Your task to perform on an android device: turn off picture-in-picture Image 0: 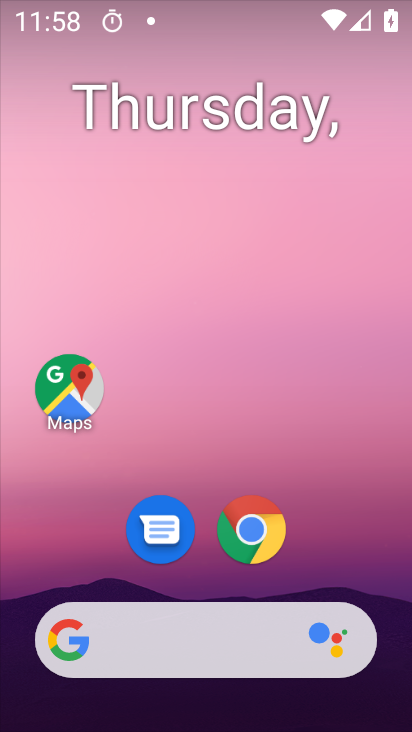
Step 0: click (259, 509)
Your task to perform on an android device: turn off picture-in-picture Image 1: 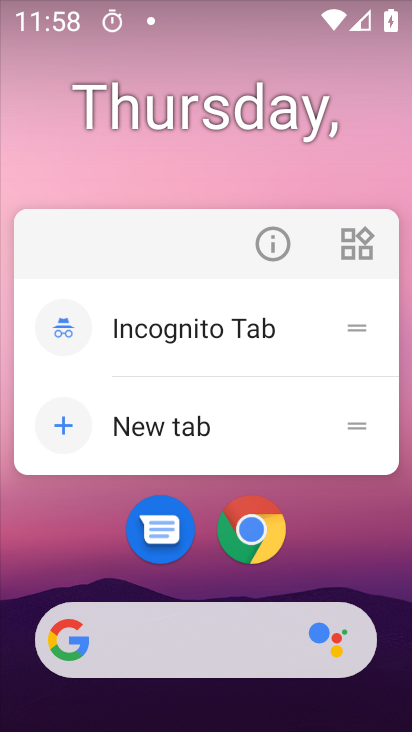
Step 1: click (275, 242)
Your task to perform on an android device: turn off picture-in-picture Image 2: 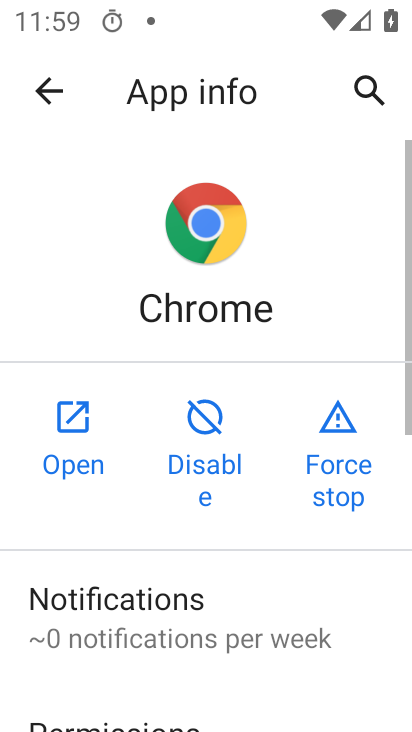
Step 2: drag from (106, 549) to (185, 218)
Your task to perform on an android device: turn off picture-in-picture Image 3: 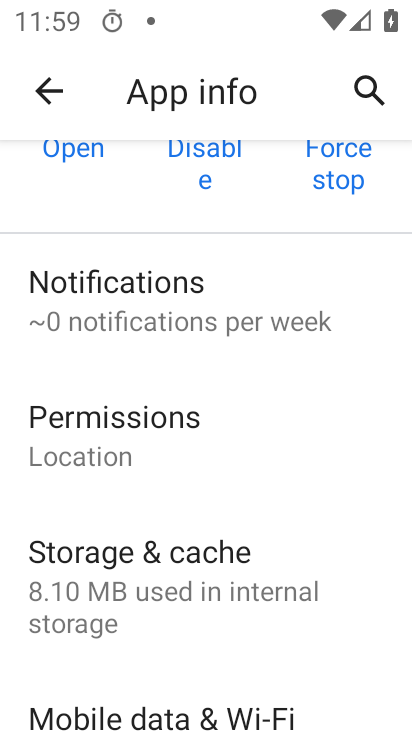
Step 3: drag from (129, 633) to (229, 246)
Your task to perform on an android device: turn off picture-in-picture Image 4: 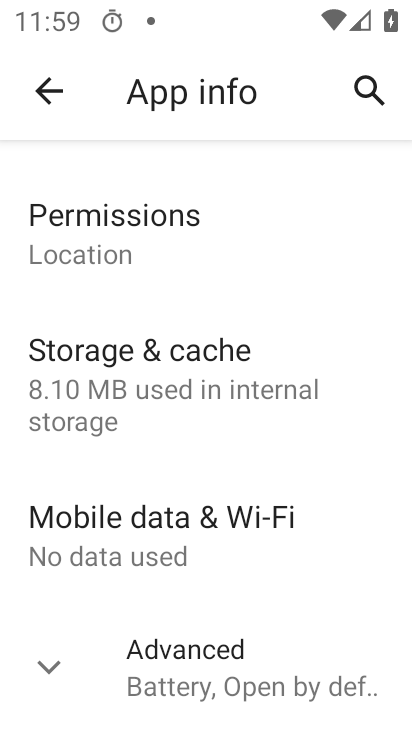
Step 4: click (156, 657)
Your task to perform on an android device: turn off picture-in-picture Image 5: 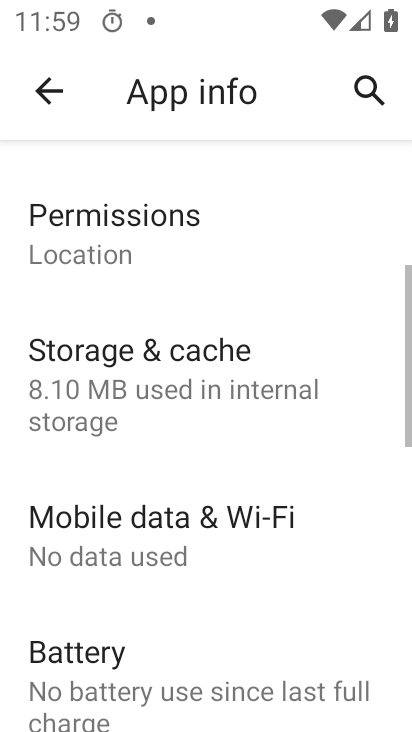
Step 5: drag from (210, 674) to (245, 286)
Your task to perform on an android device: turn off picture-in-picture Image 6: 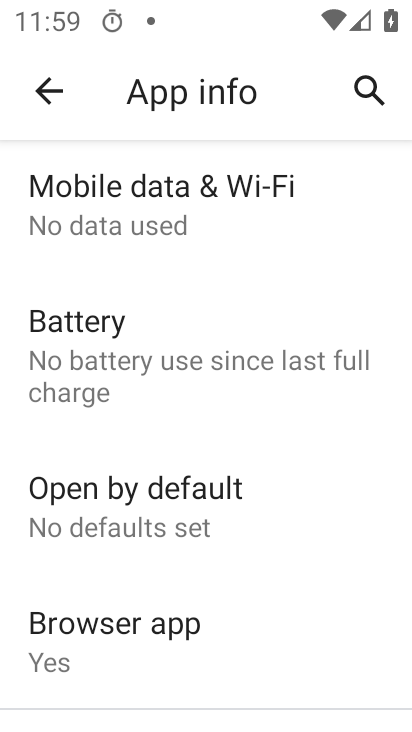
Step 6: drag from (195, 584) to (241, 283)
Your task to perform on an android device: turn off picture-in-picture Image 7: 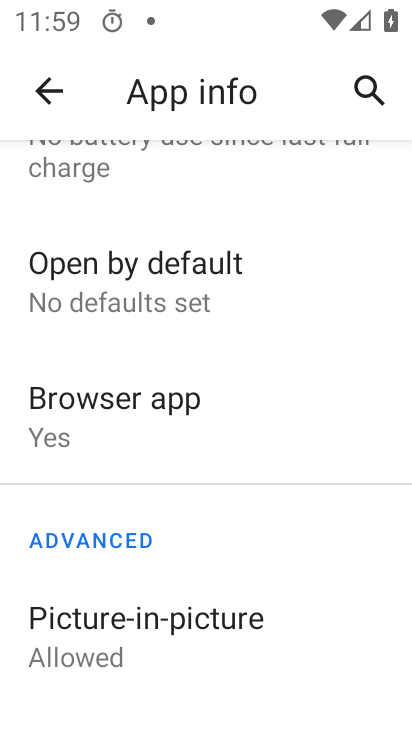
Step 7: click (139, 630)
Your task to perform on an android device: turn off picture-in-picture Image 8: 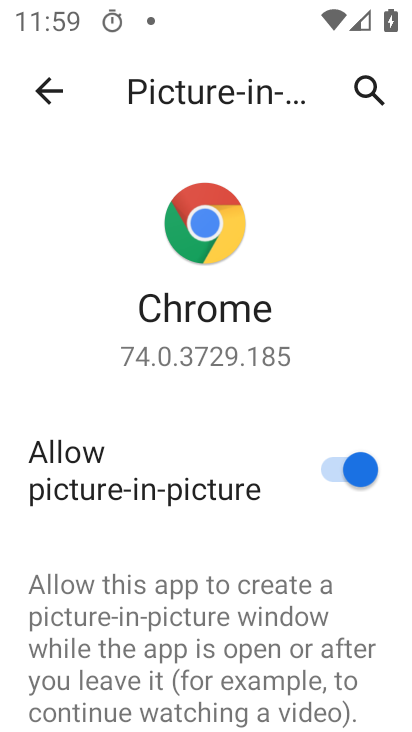
Step 8: click (306, 476)
Your task to perform on an android device: turn off picture-in-picture Image 9: 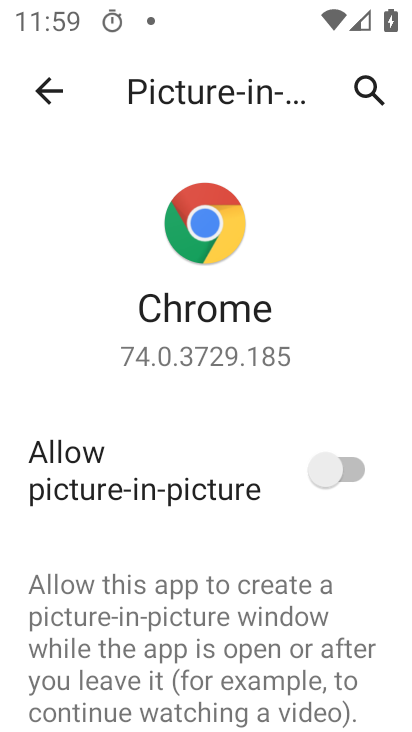
Step 9: task complete